Your task to perform on an android device: Open Google Chrome Image 0: 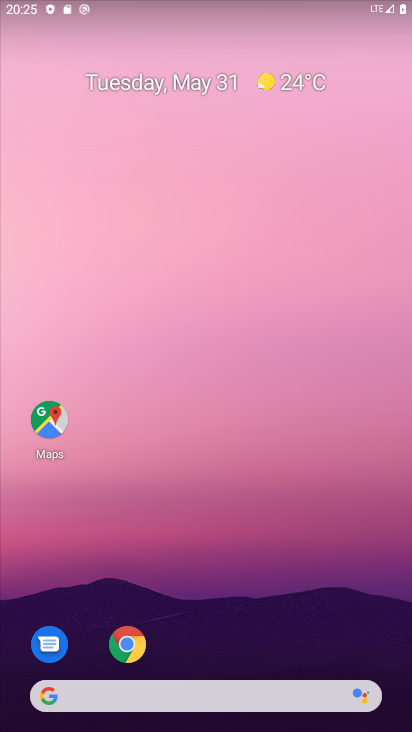
Step 0: drag from (299, 539) to (279, 63)
Your task to perform on an android device: Open Google Chrome Image 1: 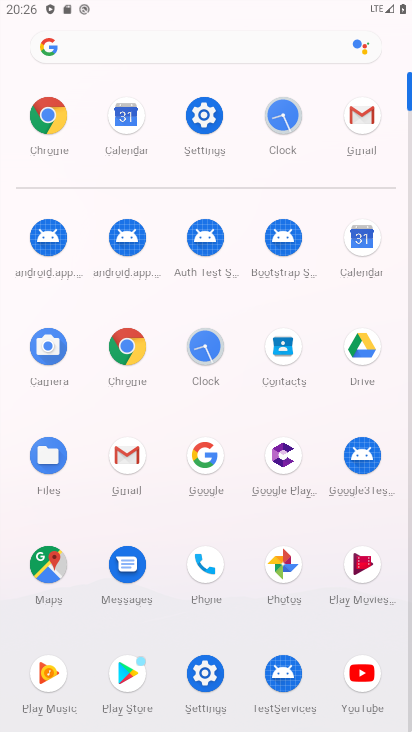
Step 1: click (115, 345)
Your task to perform on an android device: Open Google Chrome Image 2: 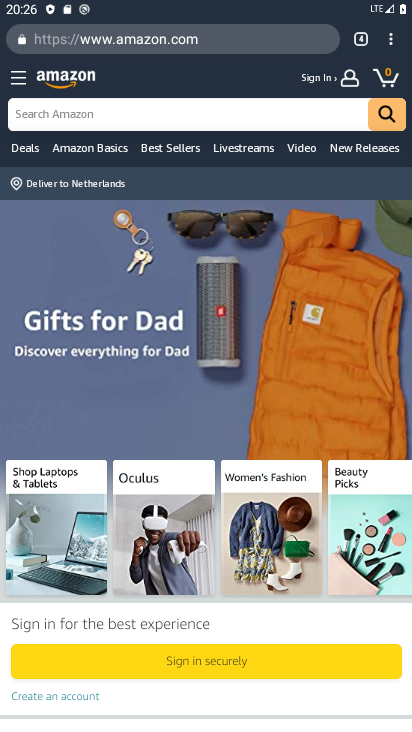
Step 2: task complete